Your task to perform on an android device: empty trash in google photos Image 0: 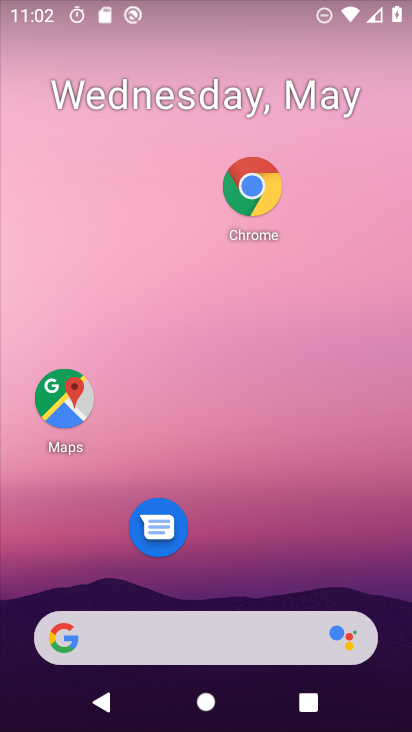
Step 0: drag from (244, 638) to (291, 165)
Your task to perform on an android device: empty trash in google photos Image 1: 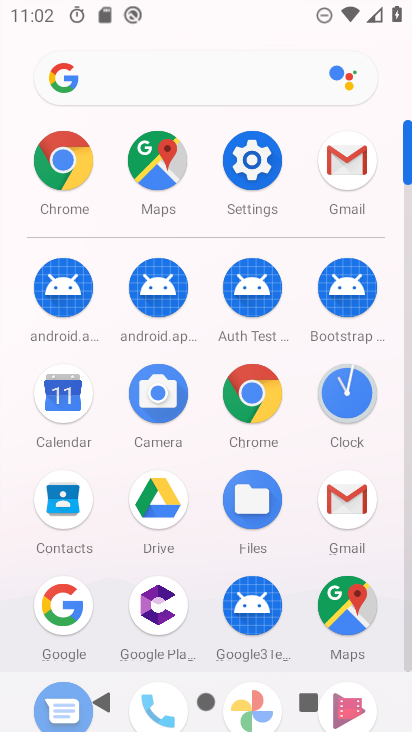
Step 1: drag from (249, 402) to (280, 265)
Your task to perform on an android device: empty trash in google photos Image 2: 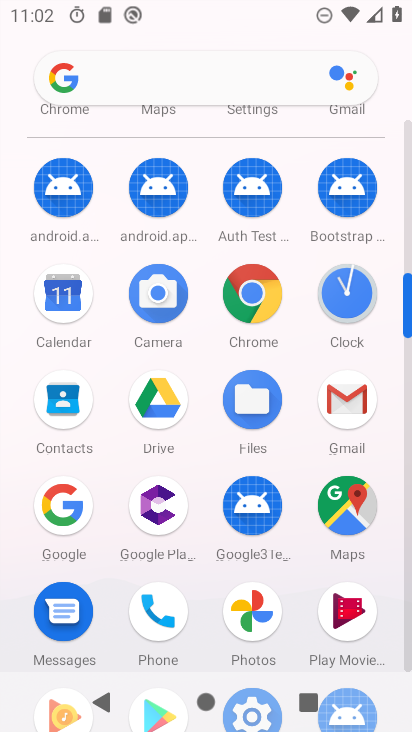
Step 2: click (231, 635)
Your task to perform on an android device: empty trash in google photos Image 3: 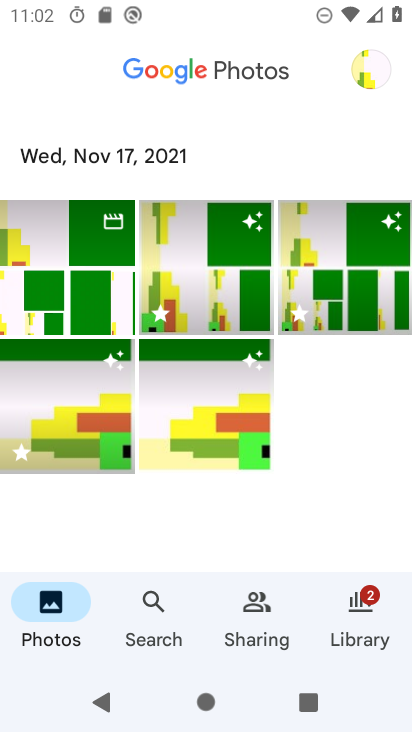
Step 3: click (368, 72)
Your task to perform on an android device: empty trash in google photos Image 4: 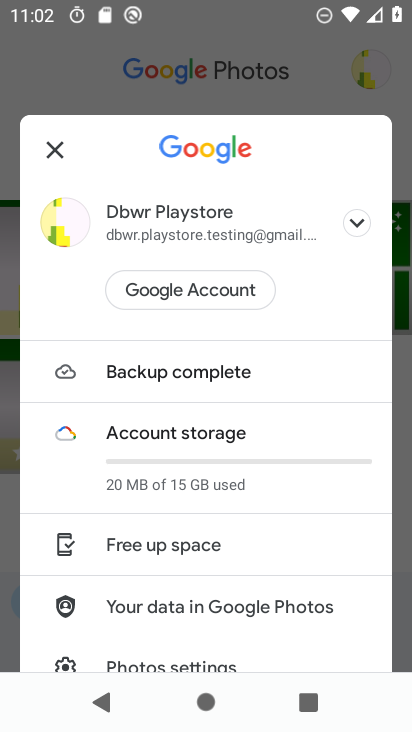
Step 4: task complete